Your task to perform on an android device: Show me recent news Image 0: 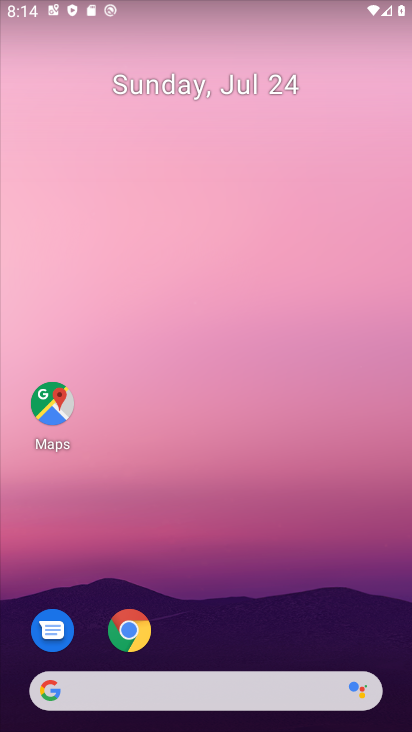
Step 0: drag from (191, 633) to (188, 1)
Your task to perform on an android device: Show me recent news Image 1: 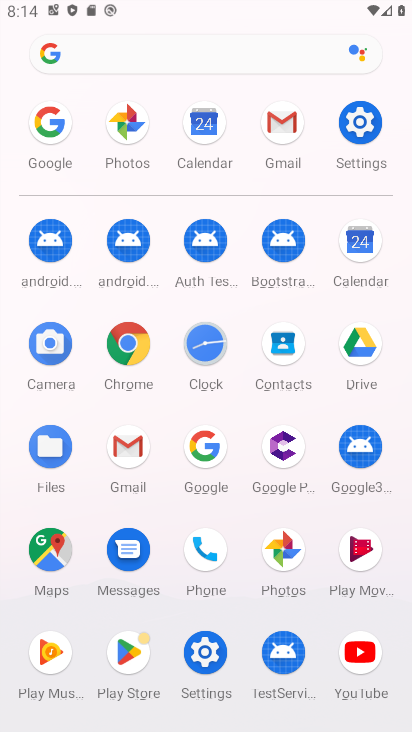
Step 1: click (187, 465)
Your task to perform on an android device: Show me recent news Image 2: 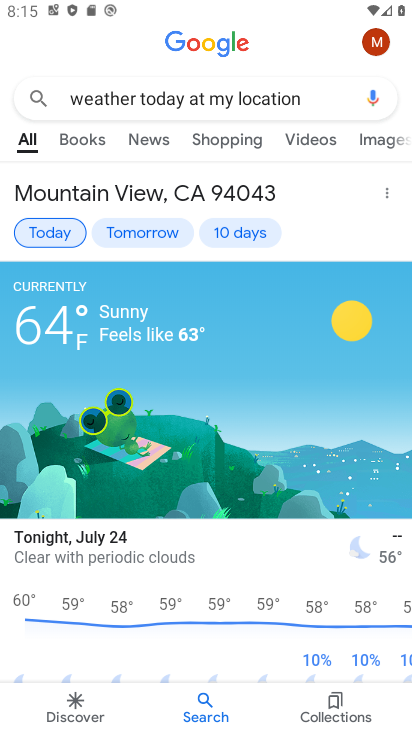
Step 2: click (156, 143)
Your task to perform on an android device: Show me recent news Image 3: 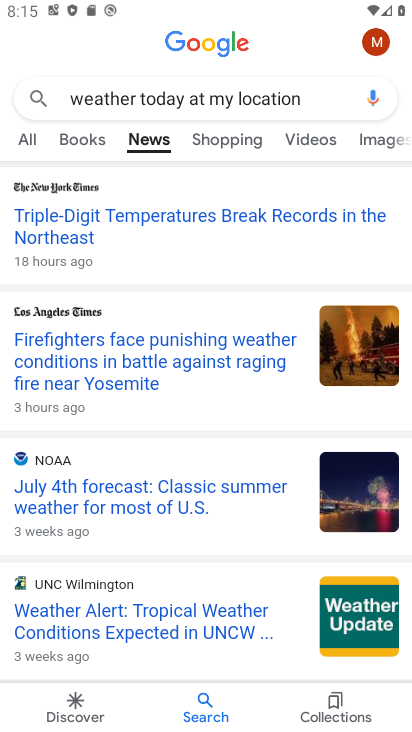
Step 3: task complete